Your task to perform on an android device: turn on wifi Image 0: 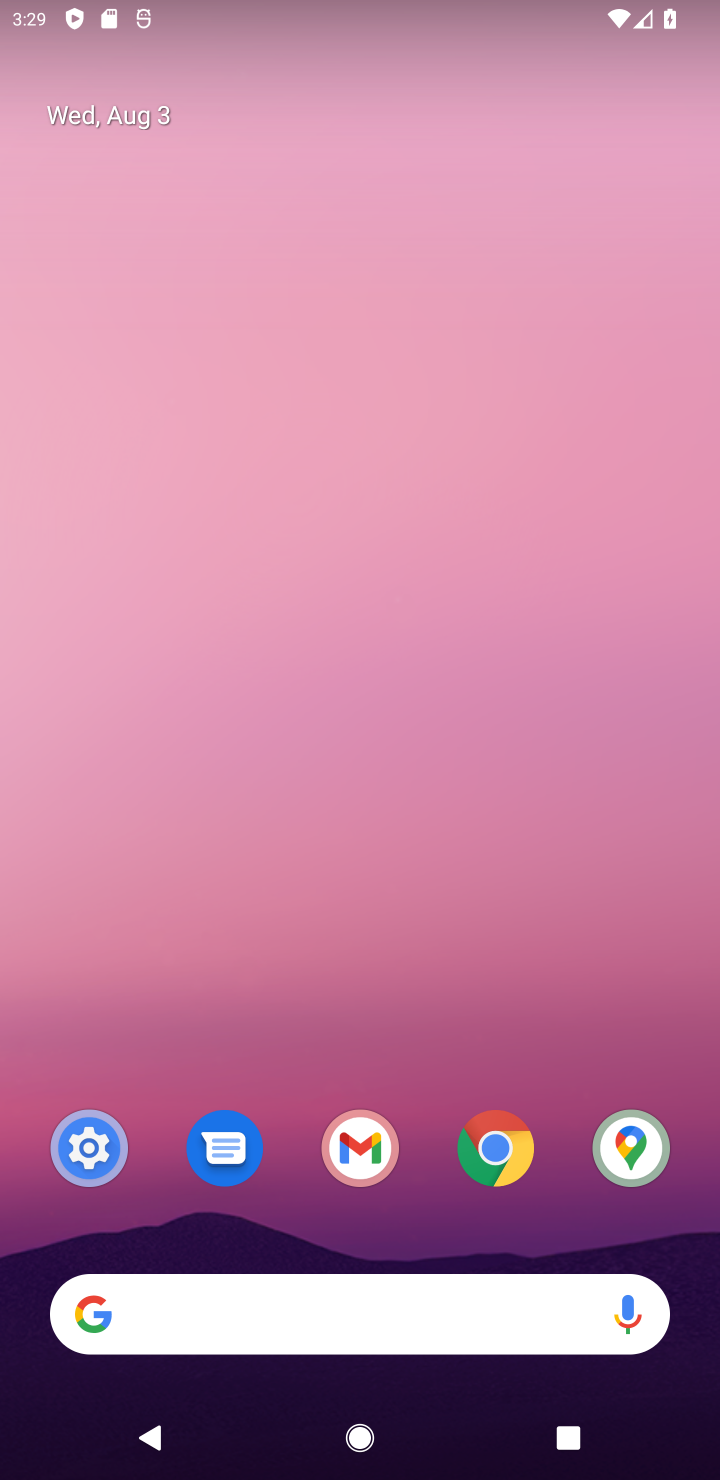
Step 0: press home button
Your task to perform on an android device: turn on wifi Image 1: 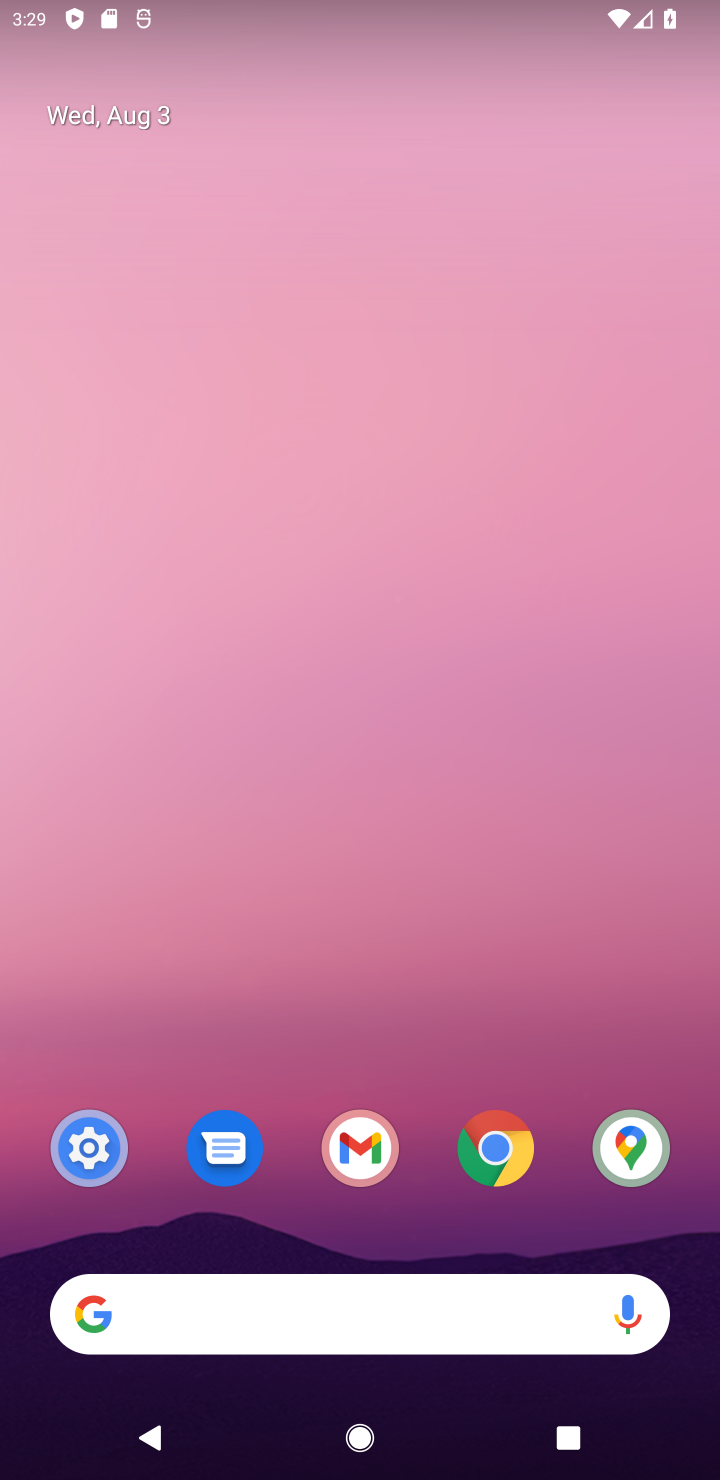
Step 1: drag from (413, 1062) to (425, 74)
Your task to perform on an android device: turn on wifi Image 2: 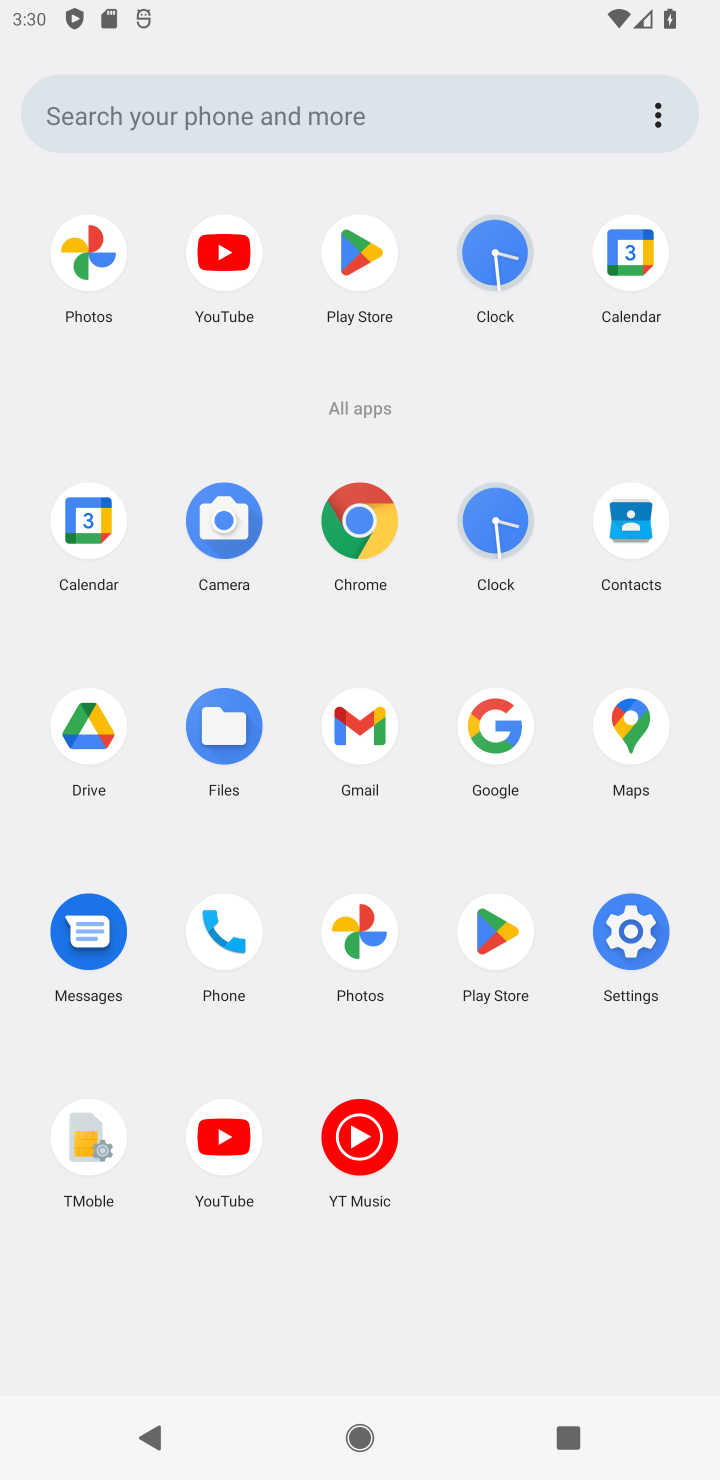
Step 2: click (640, 945)
Your task to perform on an android device: turn on wifi Image 3: 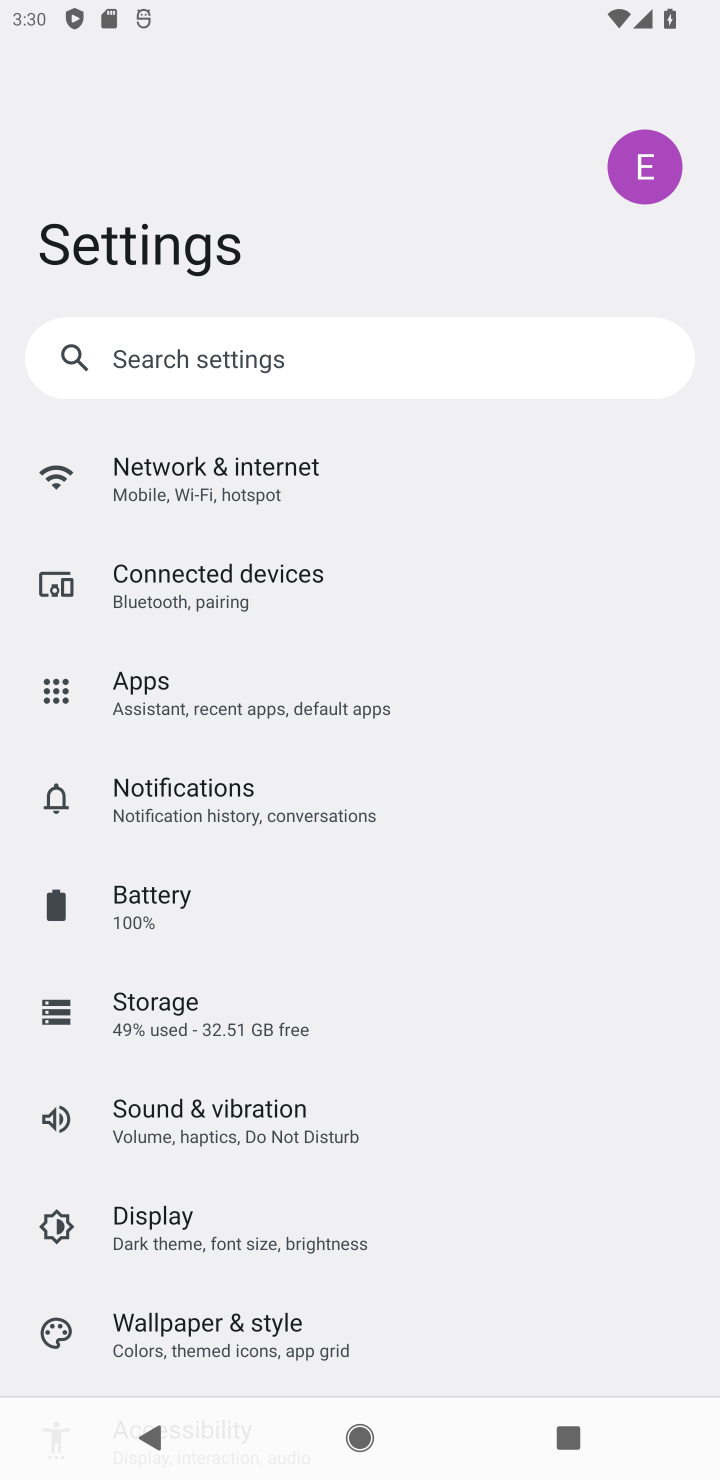
Step 3: drag from (599, 1220) to (600, 1072)
Your task to perform on an android device: turn on wifi Image 4: 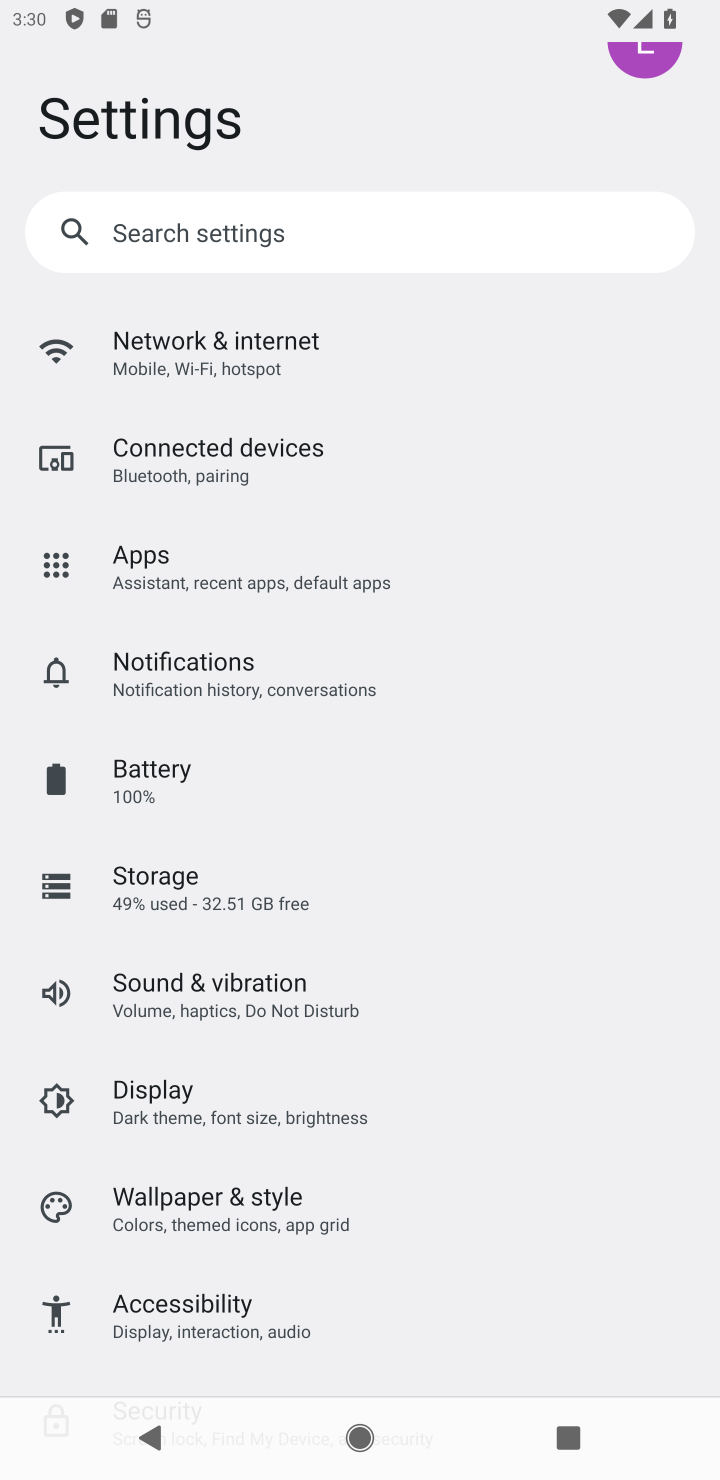
Step 4: drag from (597, 1292) to (628, 1046)
Your task to perform on an android device: turn on wifi Image 5: 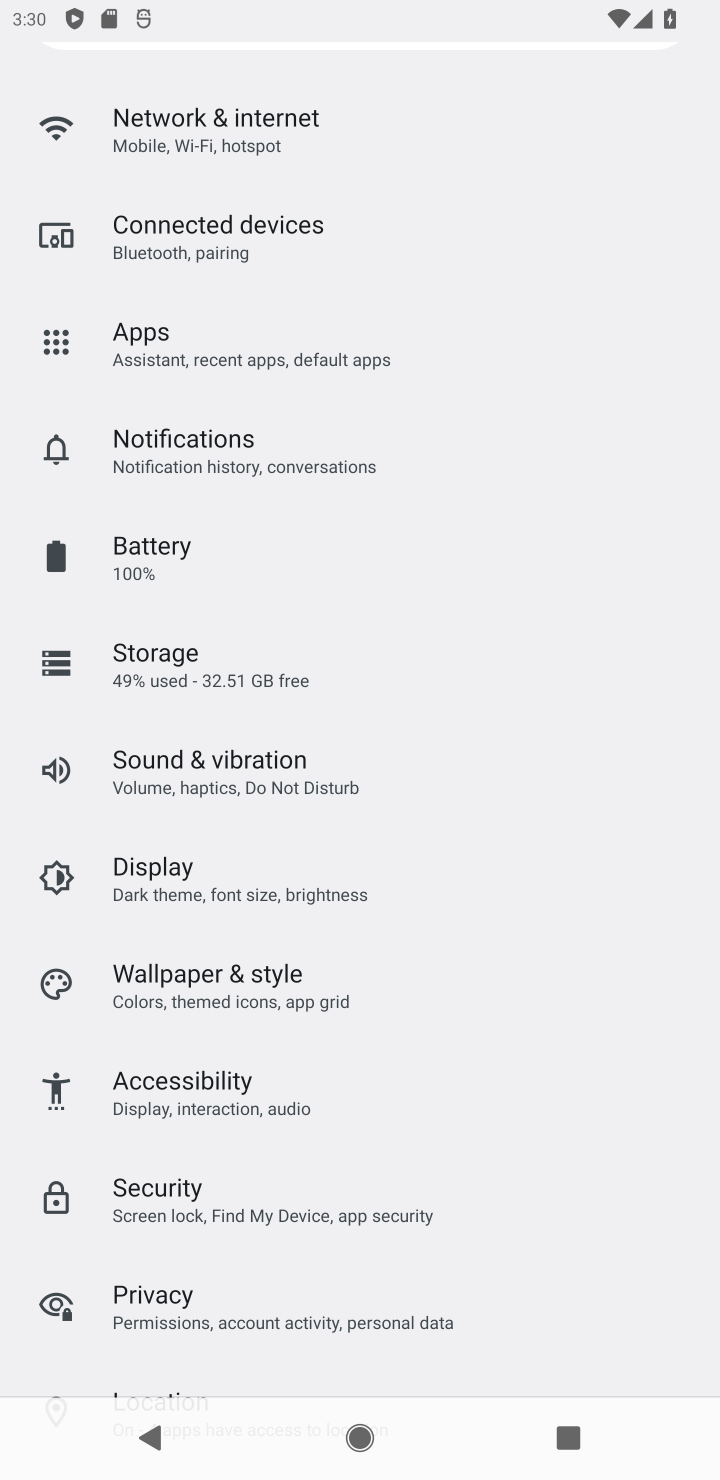
Step 5: drag from (622, 1343) to (640, 1049)
Your task to perform on an android device: turn on wifi Image 6: 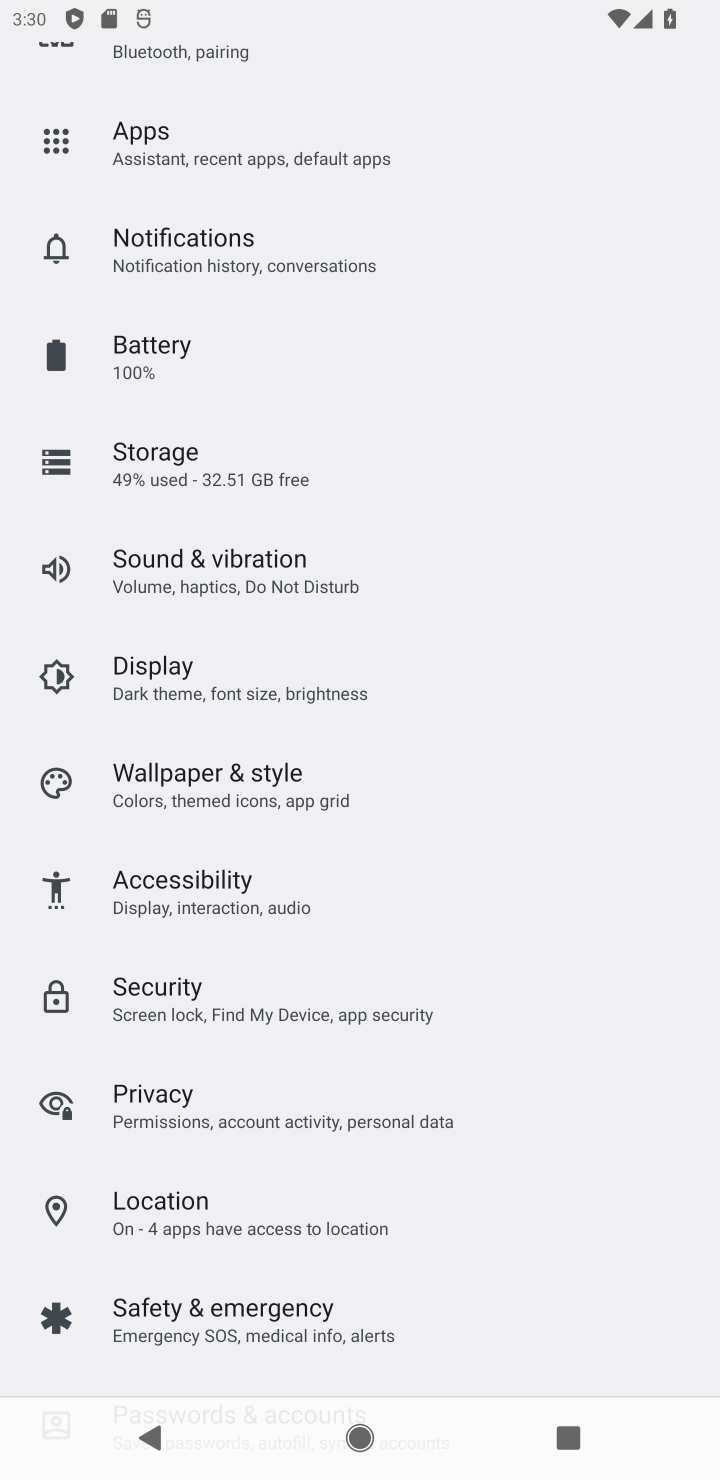
Step 6: drag from (570, 1330) to (613, 986)
Your task to perform on an android device: turn on wifi Image 7: 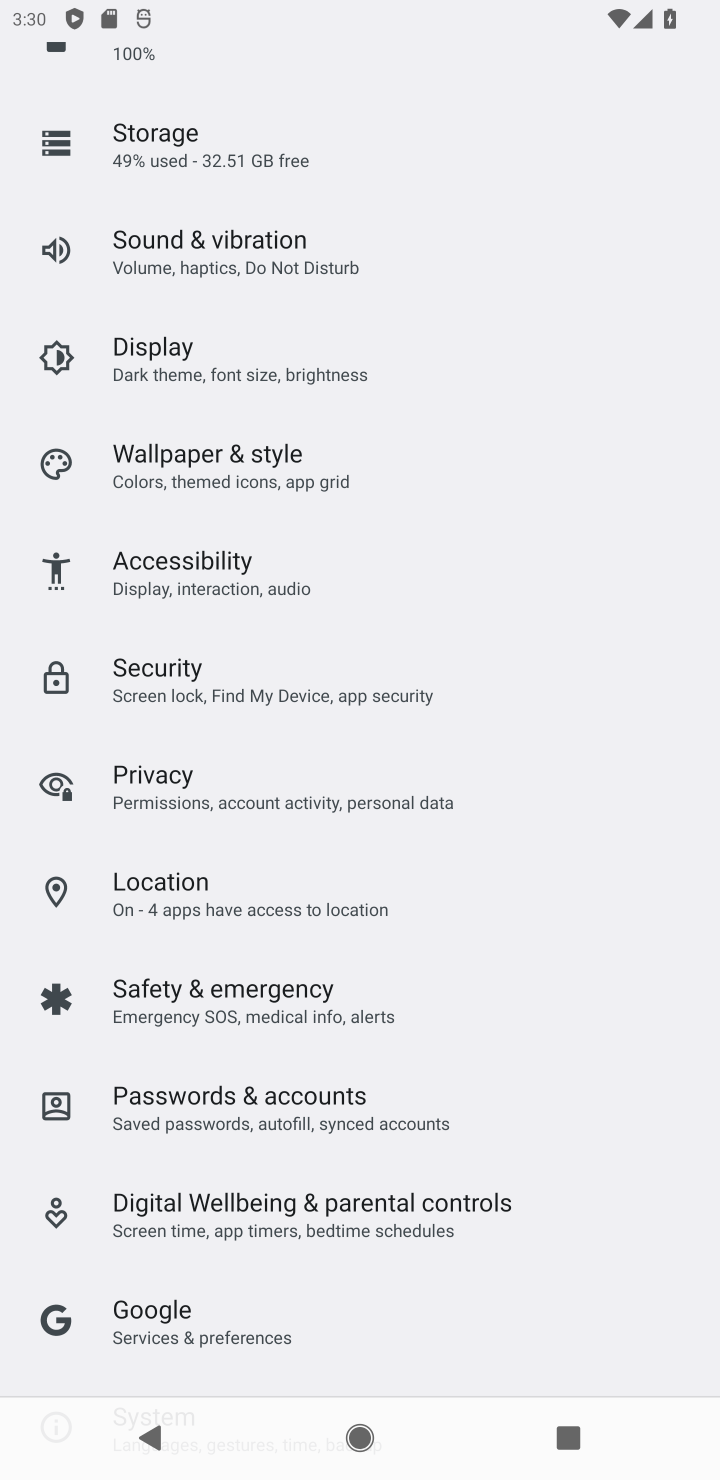
Step 7: drag from (598, 1292) to (622, 929)
Your task to perform on an android device: turn on wifi Image 8: 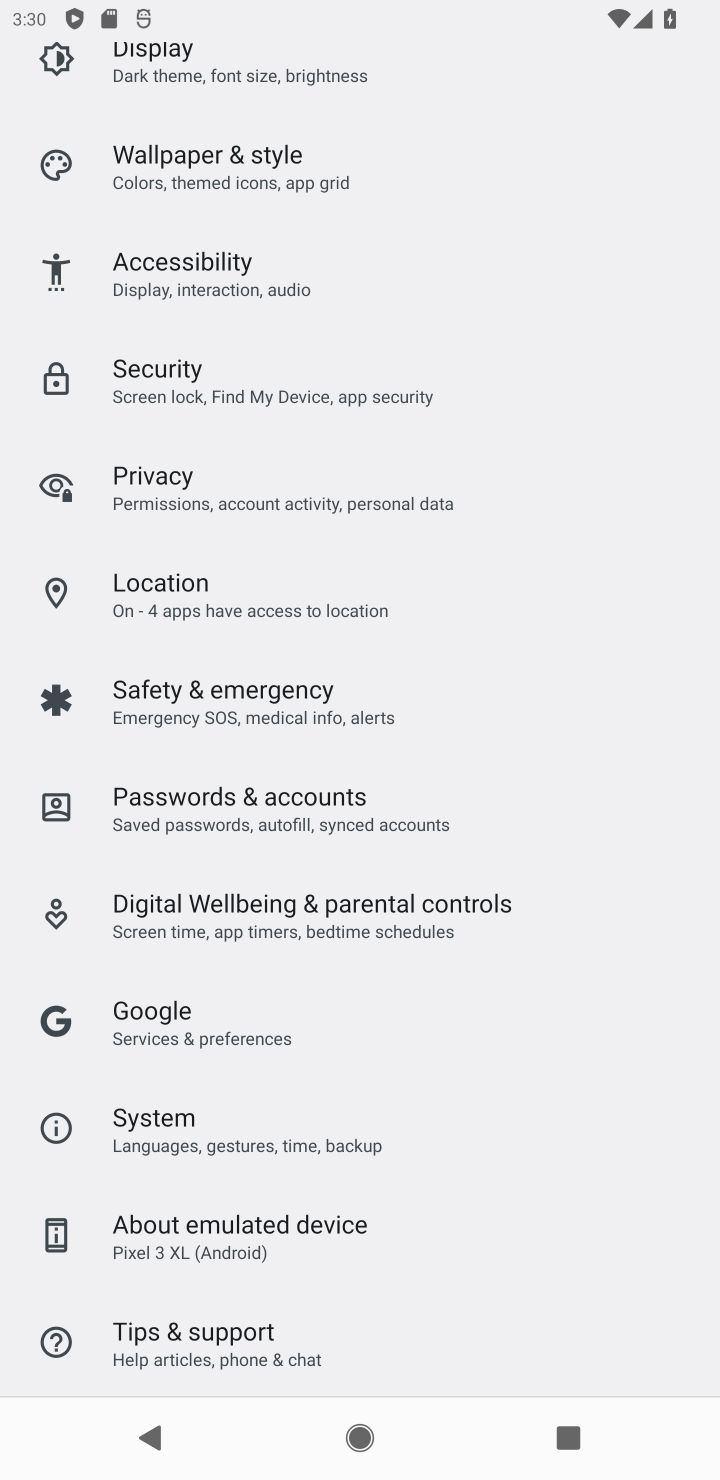
Step 8: drag from (570, 1257) to (603, 918)
Your task to perform on an android device: turn on wifi Image 9: 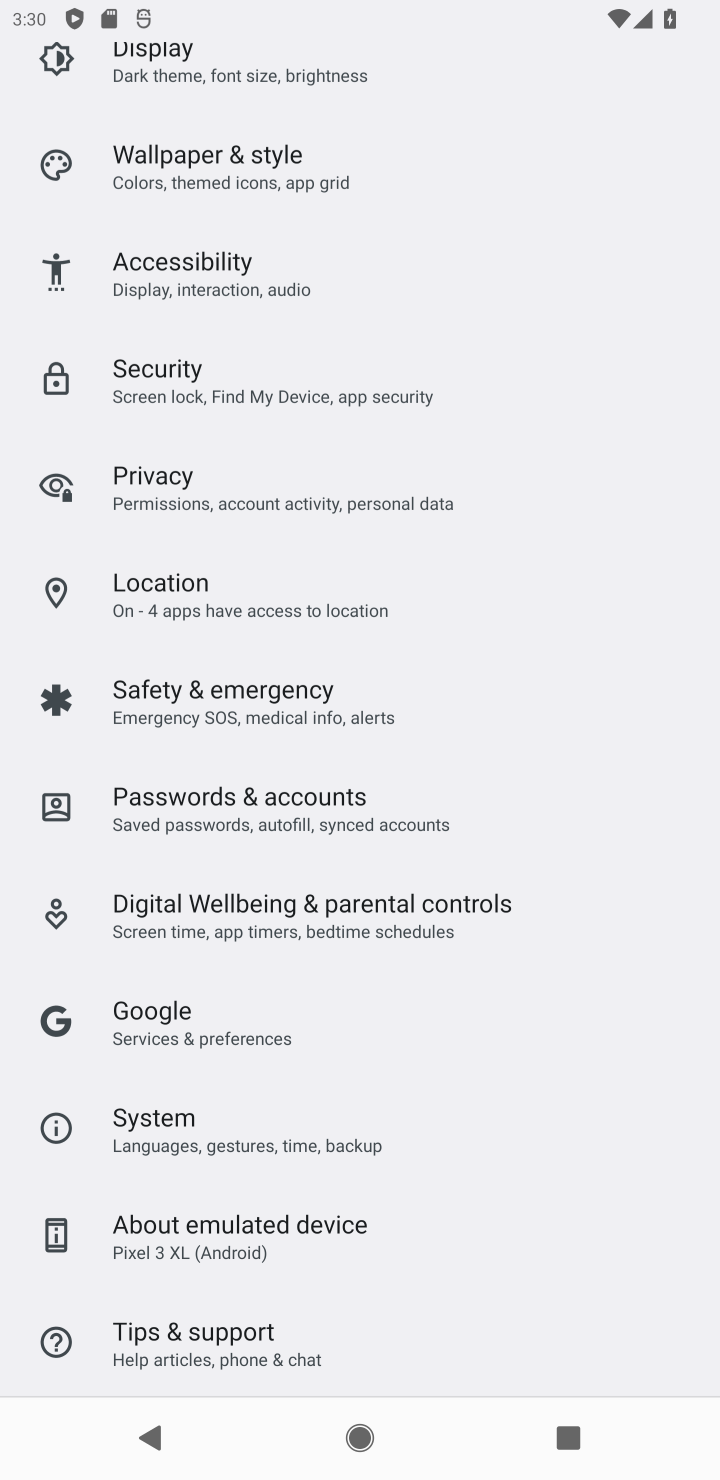
Step 9: drag from (594, 1294) to (633, 835)
Your task to perform on an android device: turn on wifi Image 10: 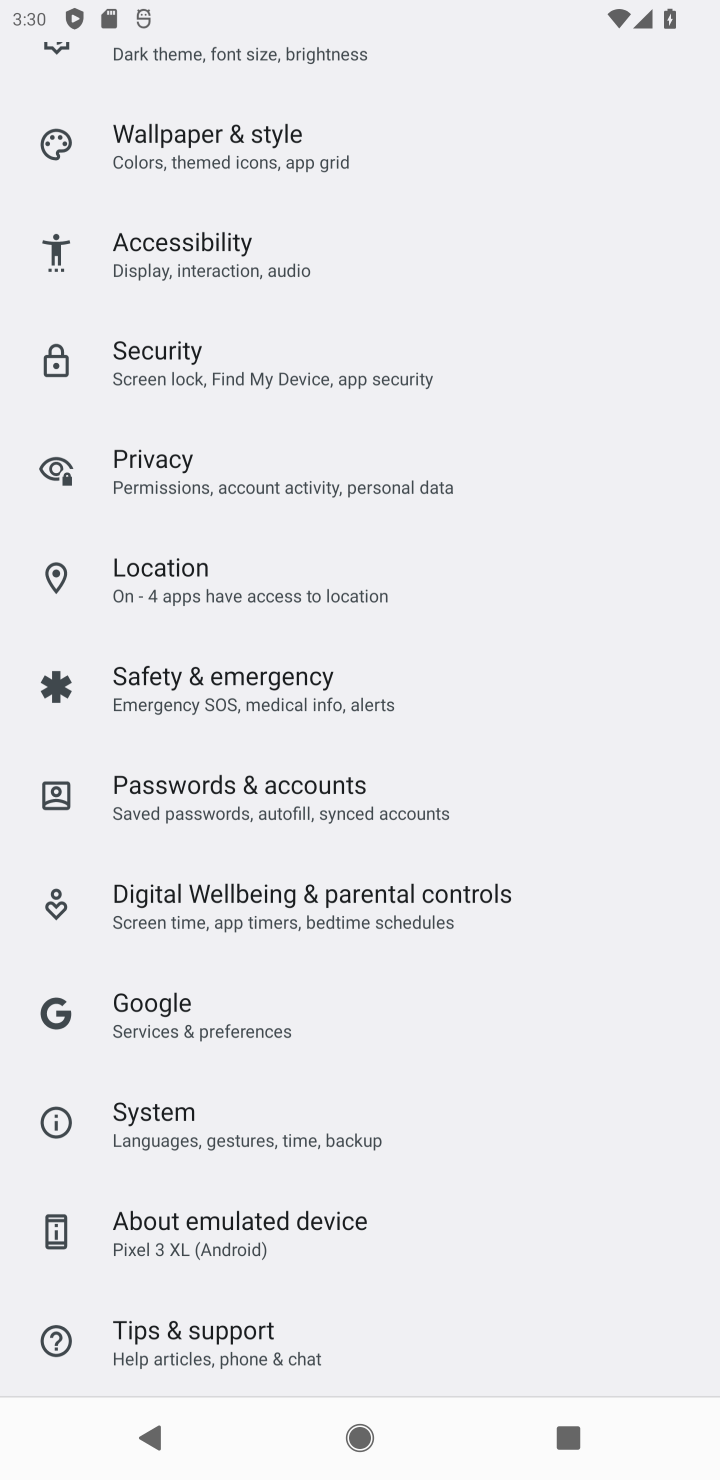
Step 10: drag from (635, 582) to (607, 1111)
Your task to perform on an android device: turn on wifi Image 11: 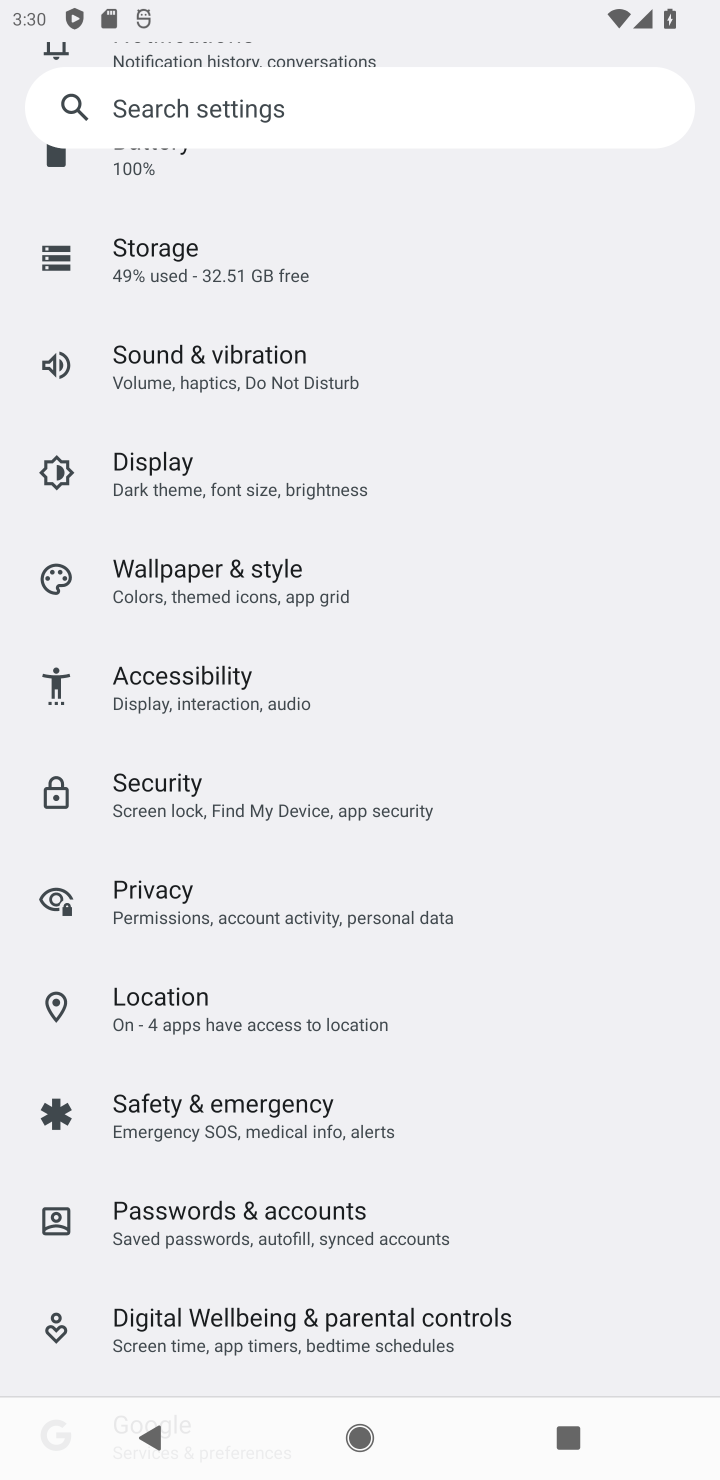
Step 11: drag from (574, 581) to (576, 1035)
Your task to perform on an android device: turn on wifi Image 12: 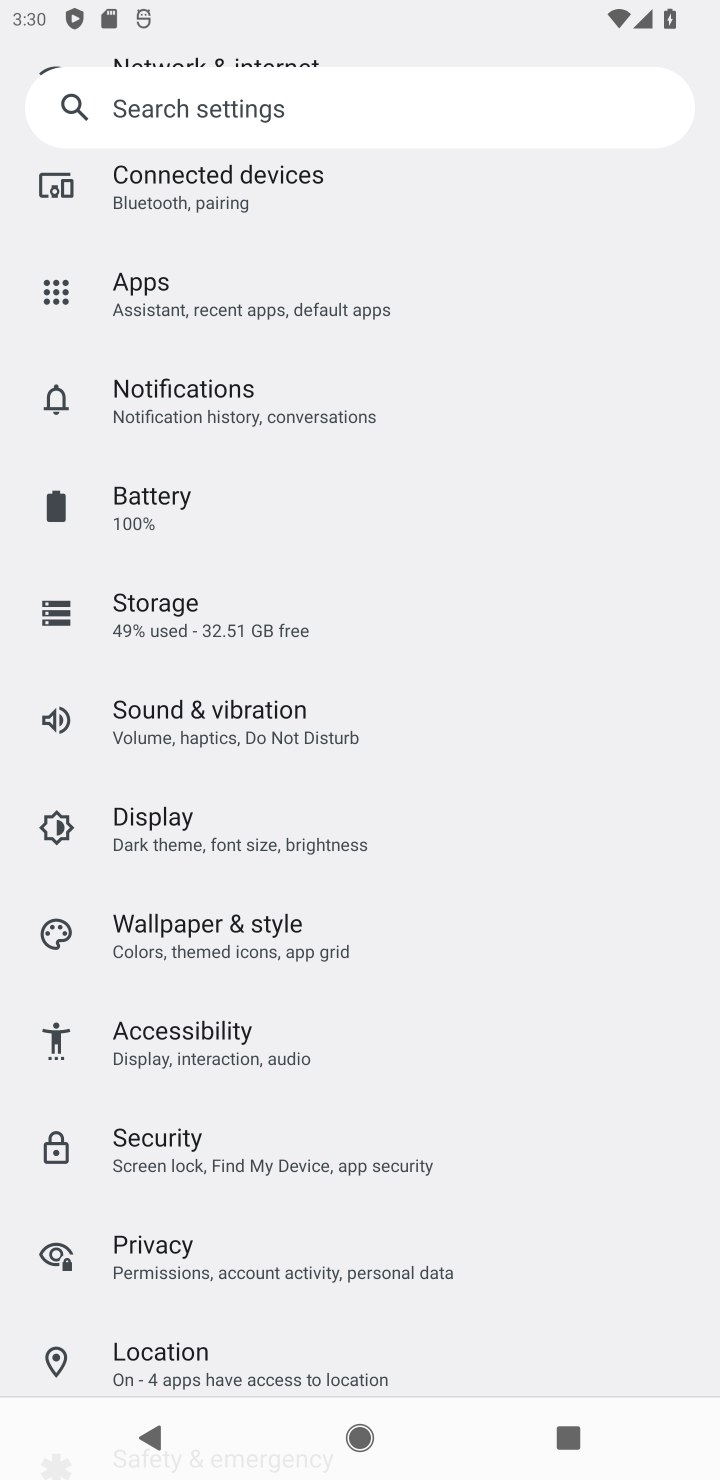
Step 12: drag from (576, 470) to (546, 991)
Your task to perform on an android device: turn on wifi Image 13: 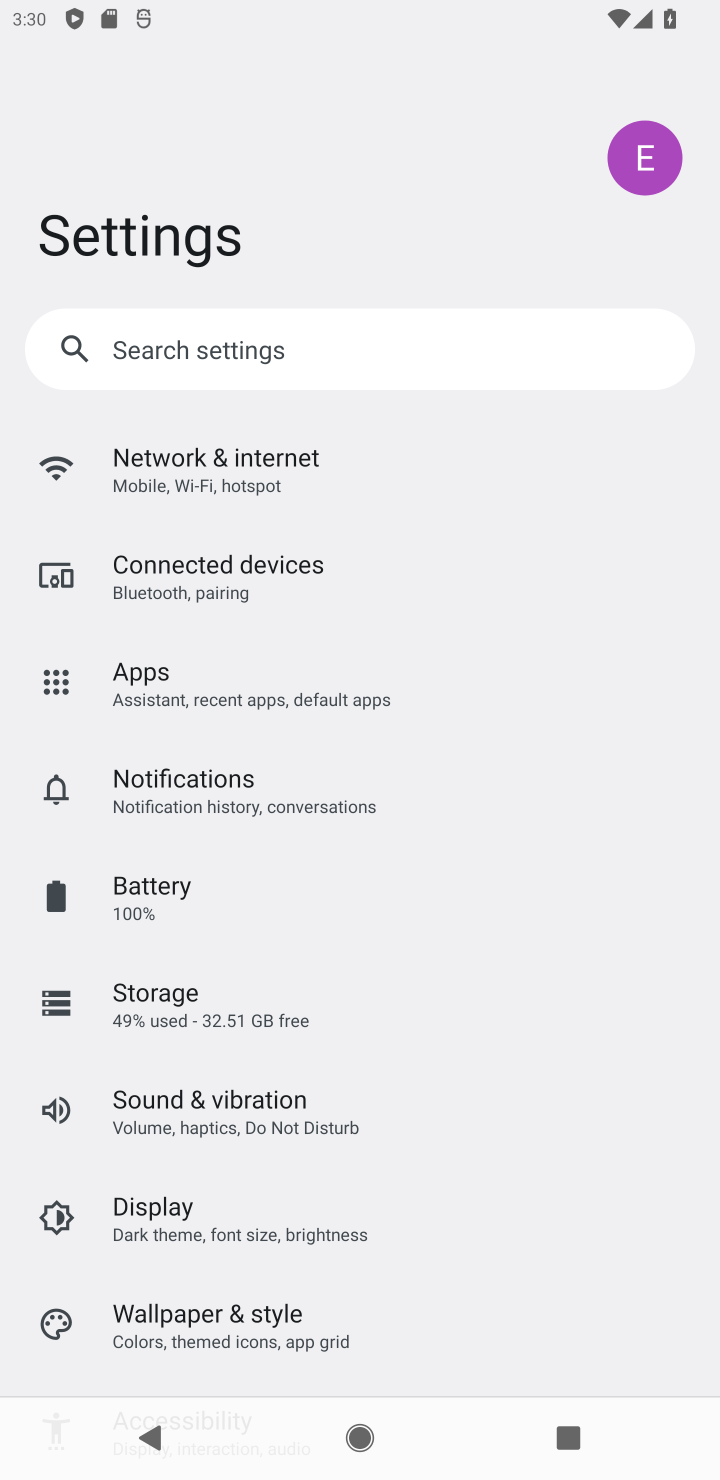
Step 13: drag from (549, 496) to (573, 1037)
Your task to perform on an android device: turn on wifi Image 14: 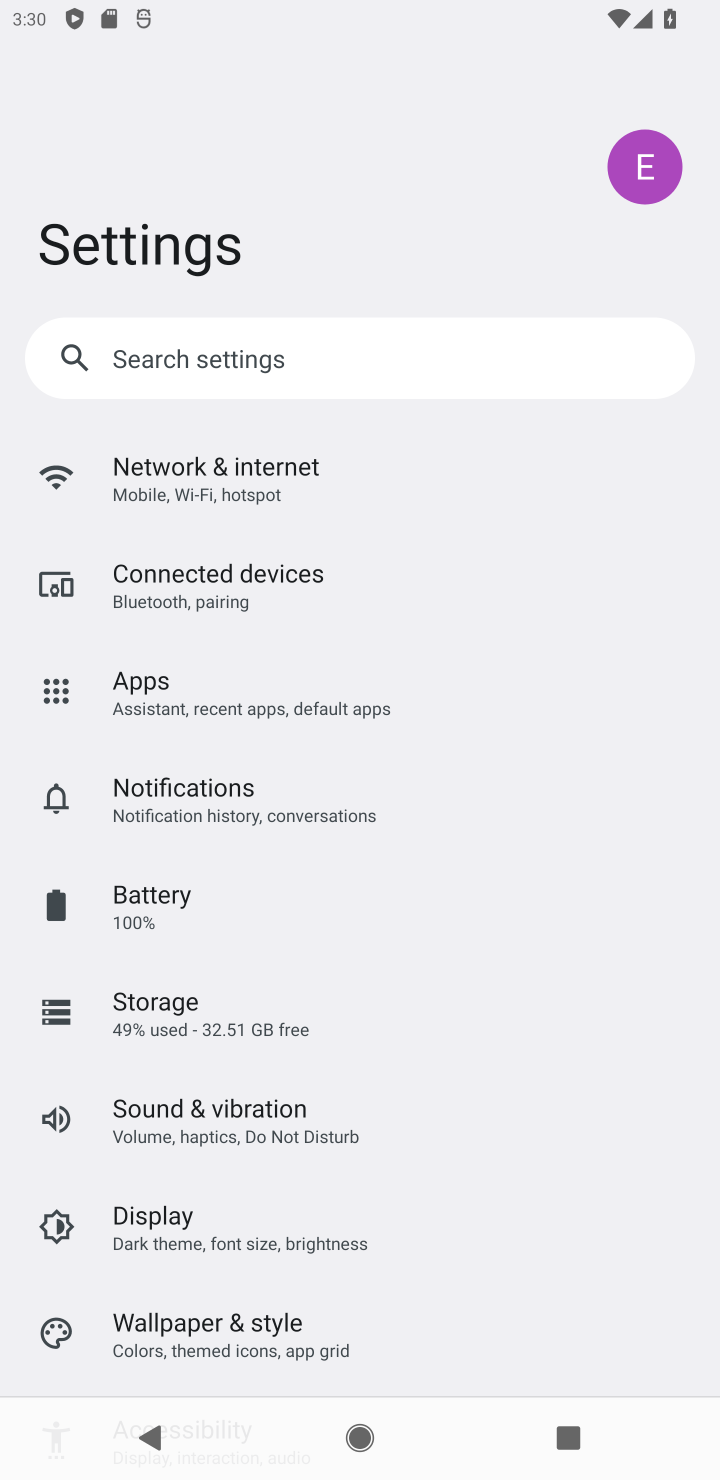
Step 14: click (302, 461)
Your task to perform on an android device: turn on wifi Image 15: 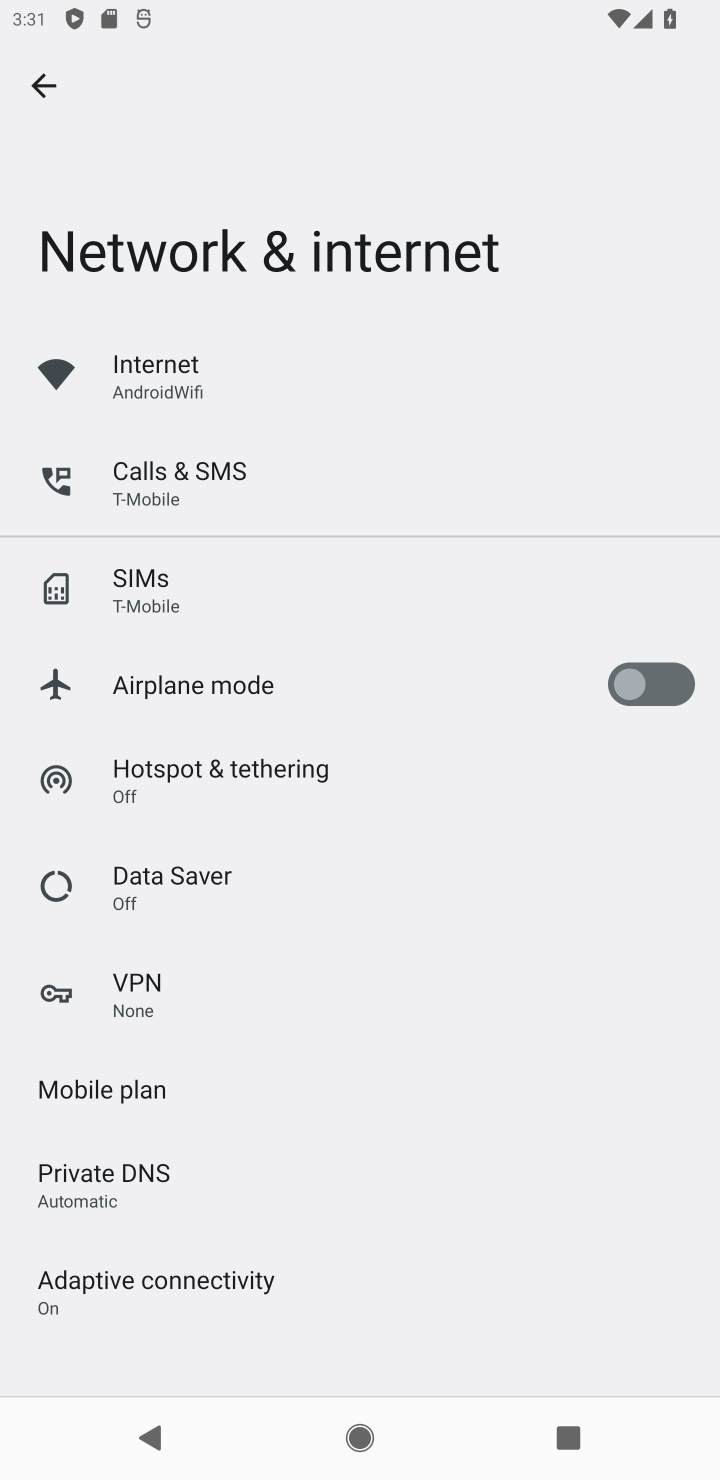
Step 15: click (190, 366)
Your task to perform on an android device: turn on wifi Image 16: 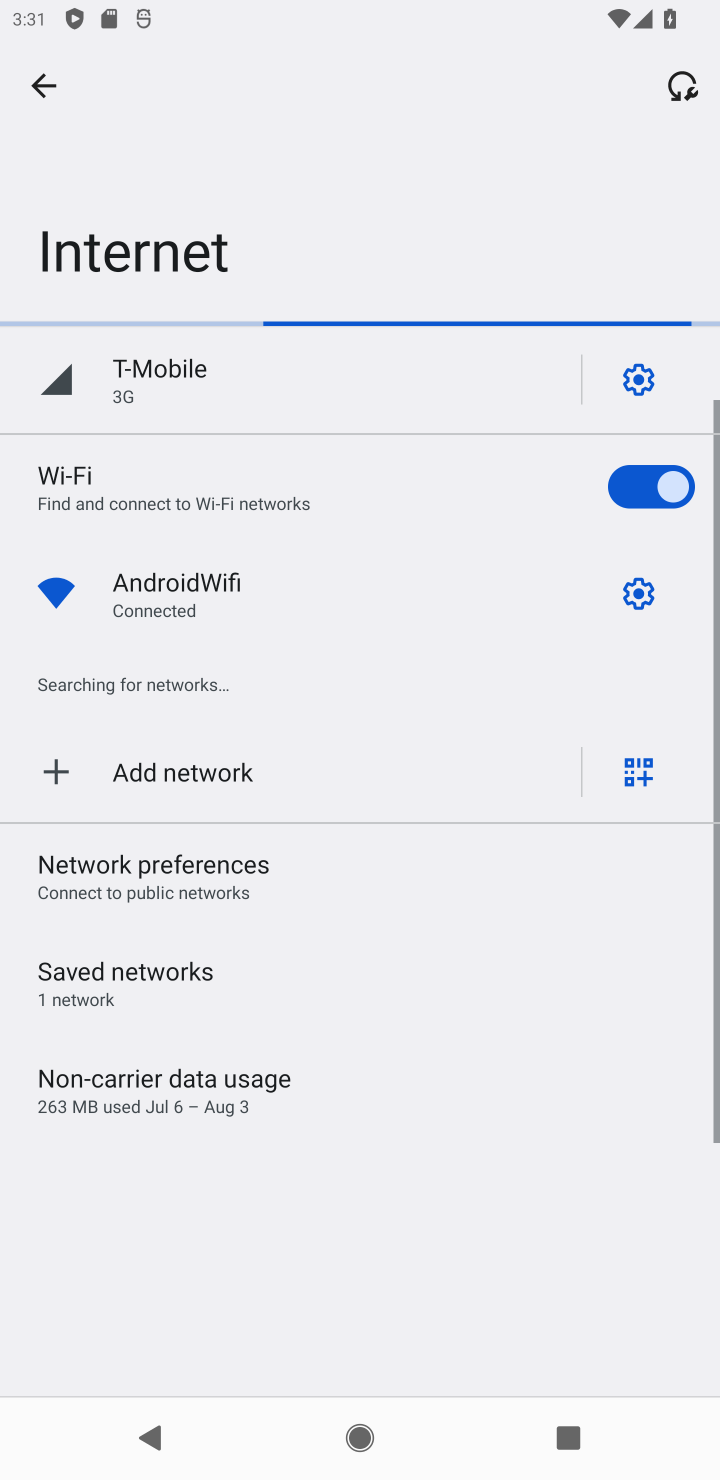
Step 16: task complete